Your task to perform on an android device: check out phone information Image 0: 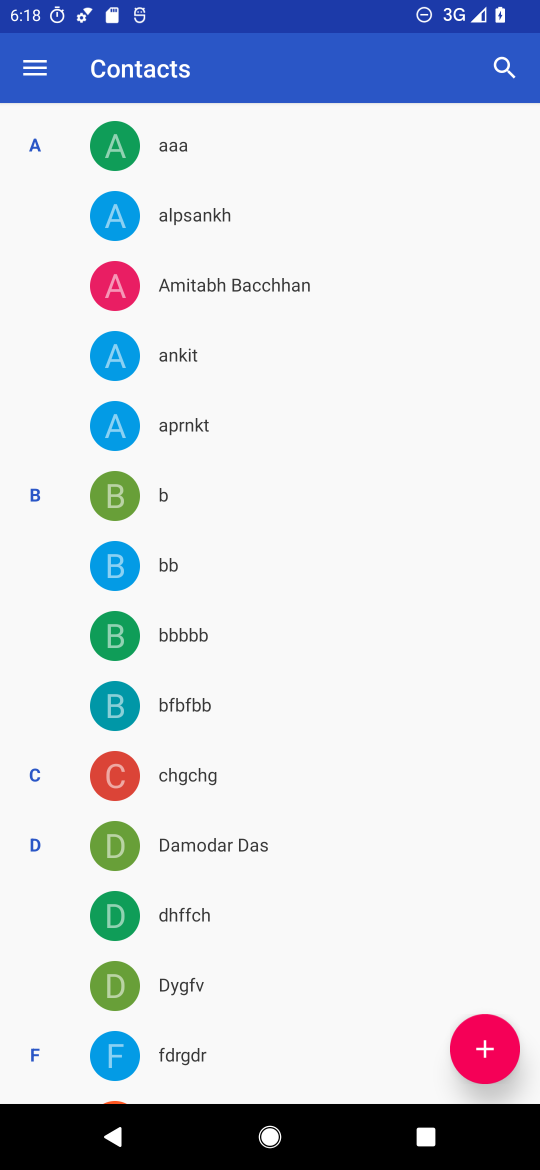
Step 0: press home button
Your task to perform on an android device: check out phone information Image 1: 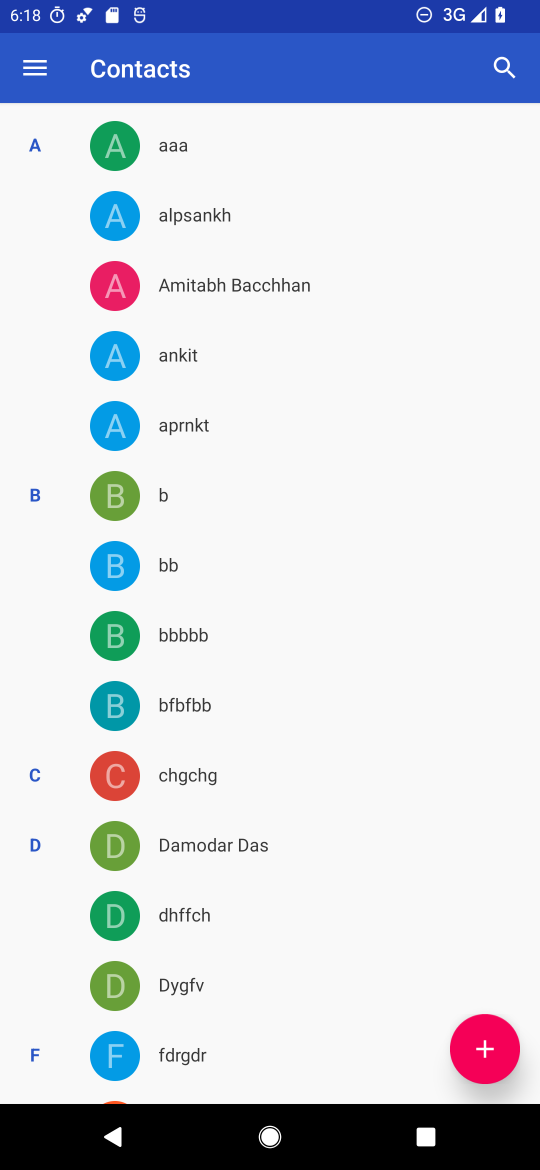
Step 1: press home button
Your task to perform on an android device: check out phone information Image 2: 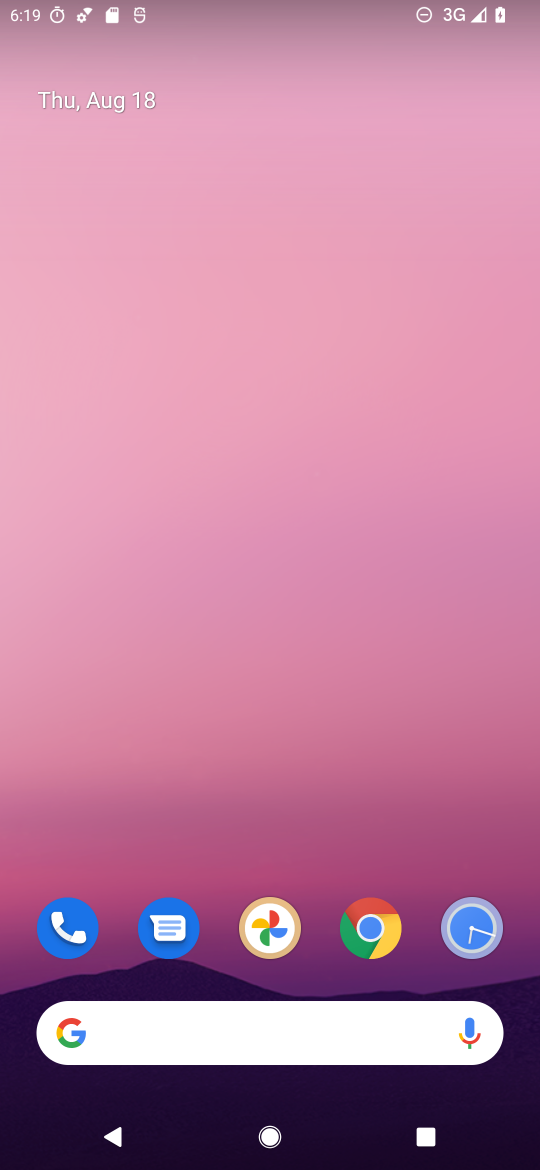
Step 2: press home button
Your task to perform on an android device: check out phone information Image 3: 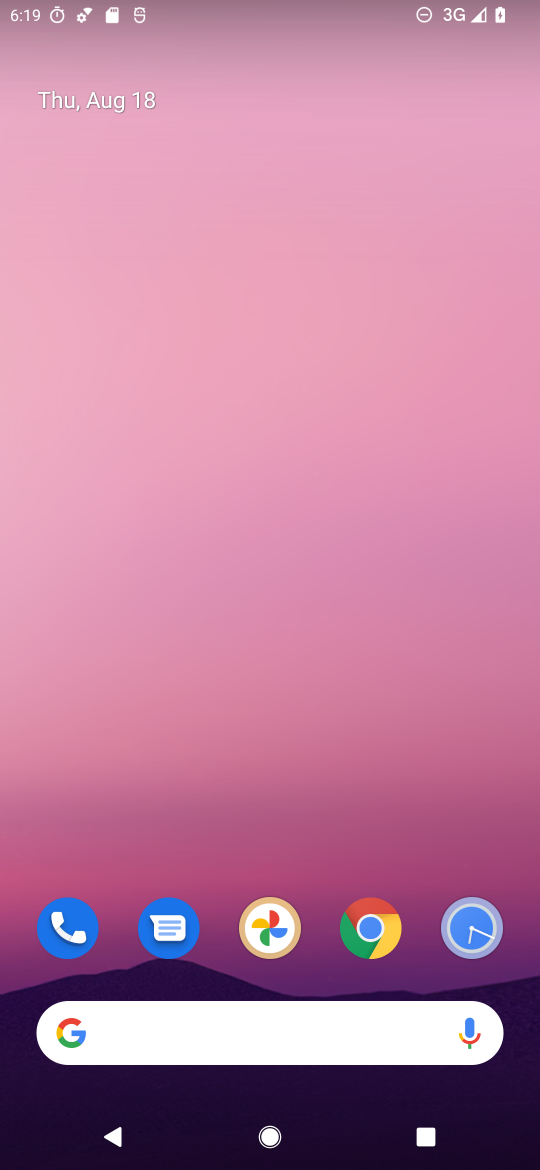
Step 3: drag from (330, 791) to (442, 73)
Your task to perform on an android device: check out phone information Image 4: 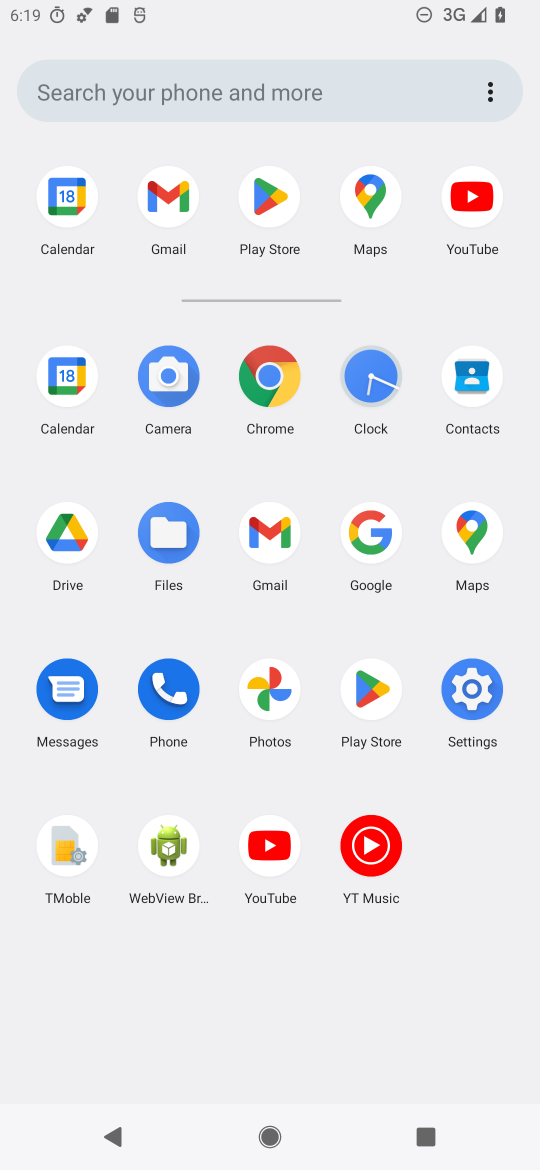
Step 4: click (175, 689)
Your task to perform on an android device: check out phone information Image 5: 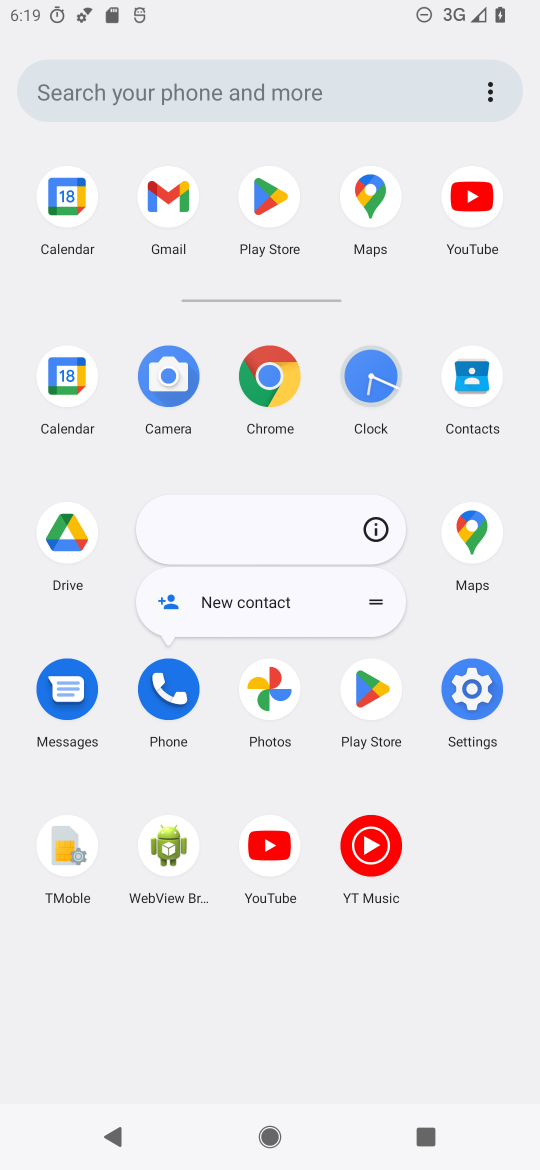
Step 5: click (372, 537)
Your task to perform on an android device: check out phone information Image 6: 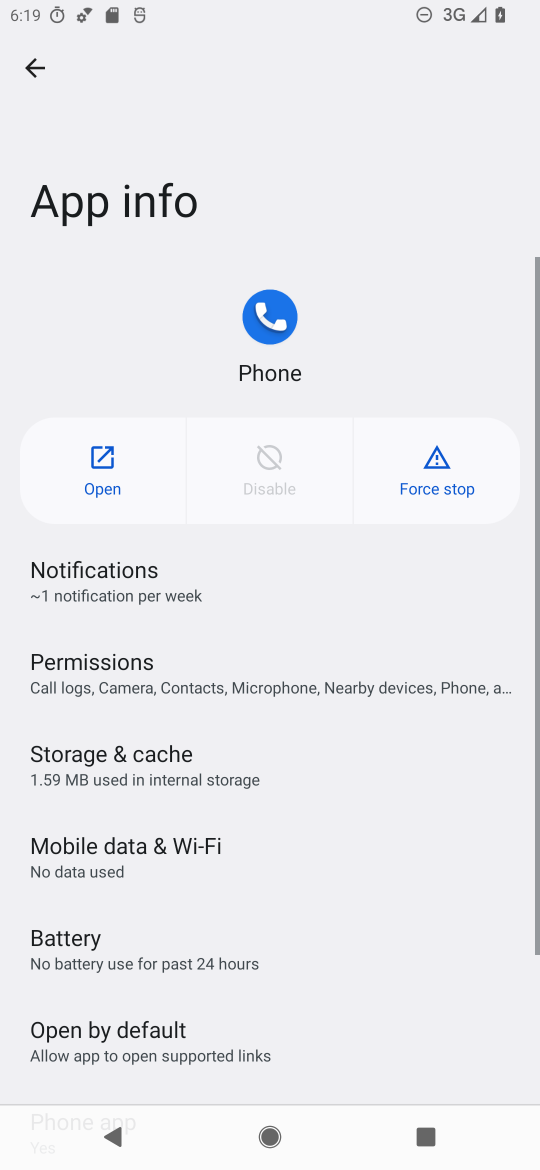
Step 6: task complete